Your task to perform on an android device: Open location settings Image 0: 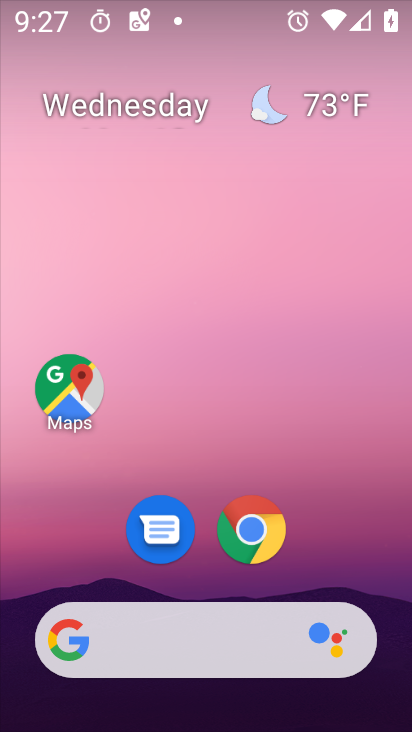
Step 0: drag from (379, 548) to (371, 217)
Your task to perform on an android device: Open location settings Image 1: 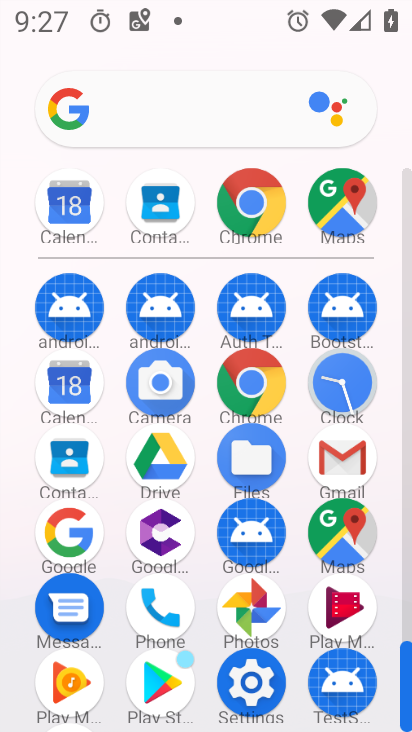
Step 1: drag from (201, 516) to (194, 334)
Your task to perform on an android device: Open location settings Image 2: 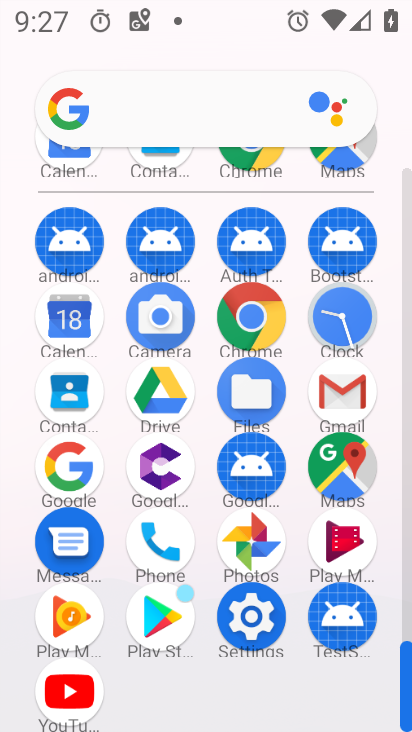
Step 2: click (252, 643)
Your task to perform on an android device: Open location settings Image 3: 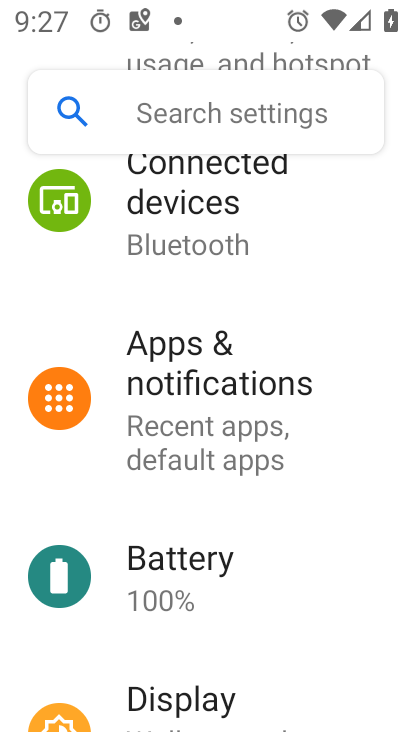
Step 3: drag from (323, 629) to (337, 487)
Your task to perform on an android device: Open location settings Image 4: 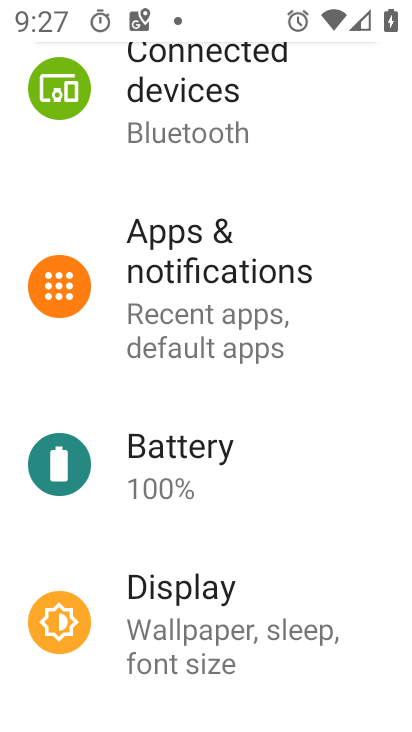
Step 4: drag from (364, 554) to (372, 473)
Your task to perform on an android device: Open location settings Image 5: 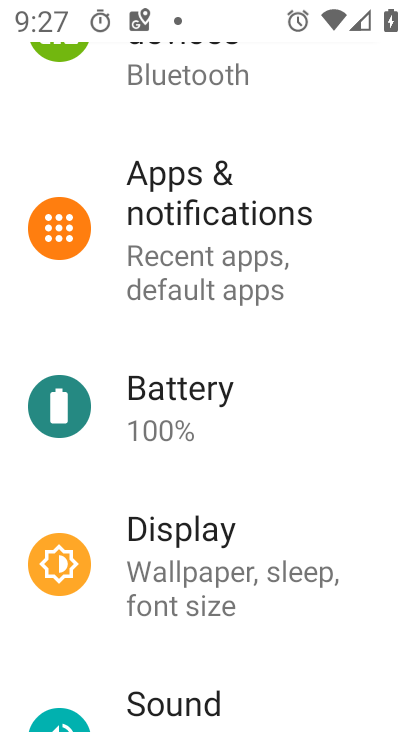
Step 5: drag from (357, 648) to (369, 477)
Your task to perform on an android device: Open location settings Image 6: 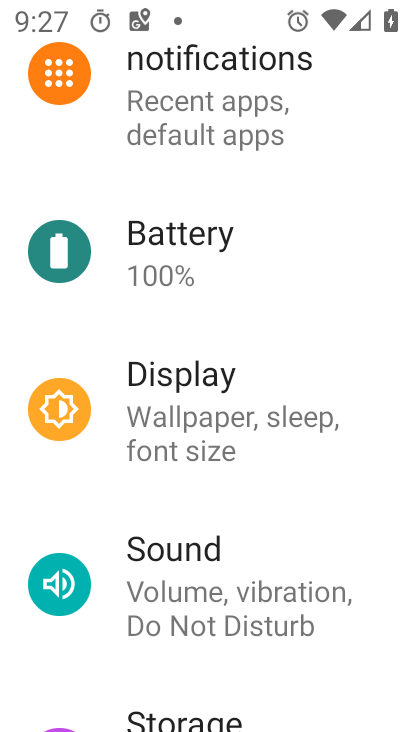
Step 6: drag from (366, 550) to (378, 453)
Your task to perform on an android device: Open location settings Image 7: 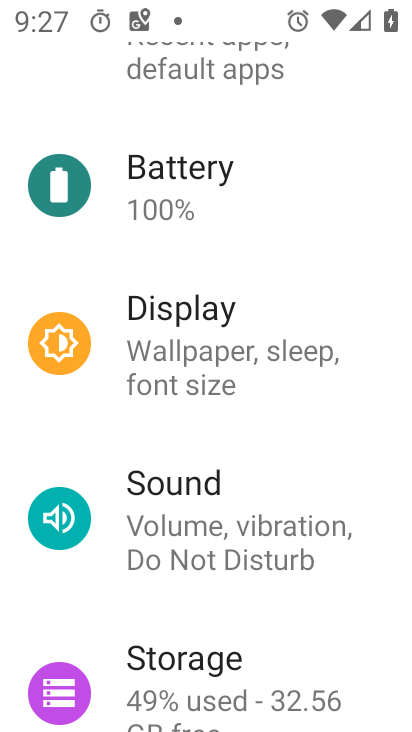
Step 7: drag from (364, 619) to (362, 500)
Your task to perform on an android device: Open location settings Image 8: 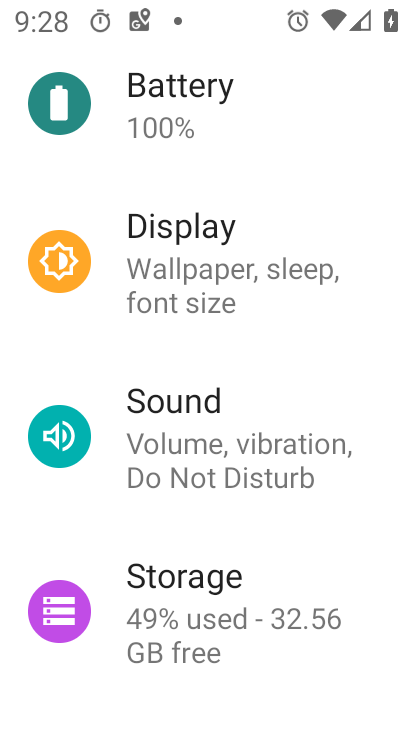
Step 8: drag from (371, 573) to (368, 424)
Your task to perform on an android device: Open location settings Image 9: 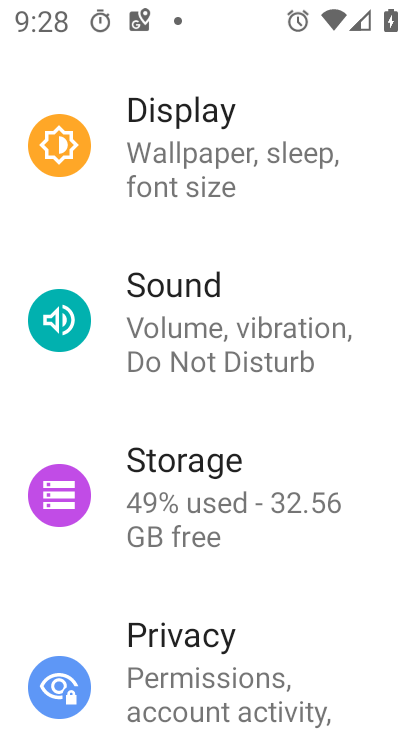
Step 9: drag from (351, 648) to (360, 414)
Your task to perform on an android device: Open location settings Image 10: 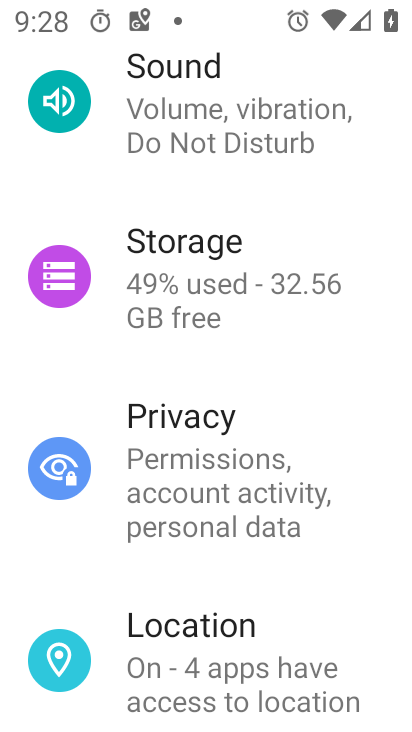
Step 10: click (211, 646)
Your task to perform on an android device: Open location settings Image 11: 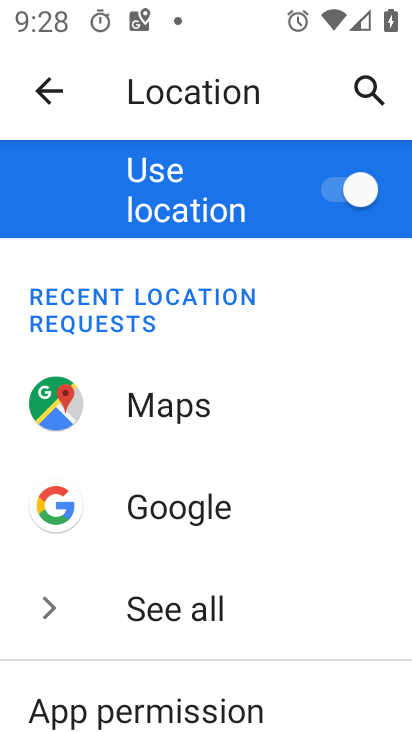
Step 11: task complete